Your task to perform on an android device: Open battery settings Image 0: 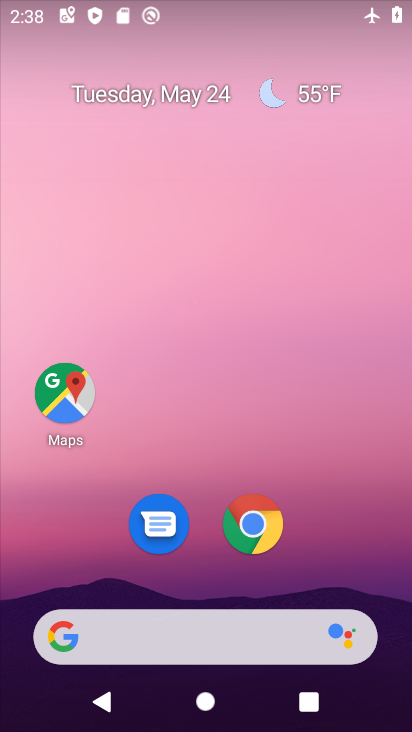
Step 0: drag from (329, 477) to (300, 55)
Your task to perform on an android device: Open battery settings Image 1: 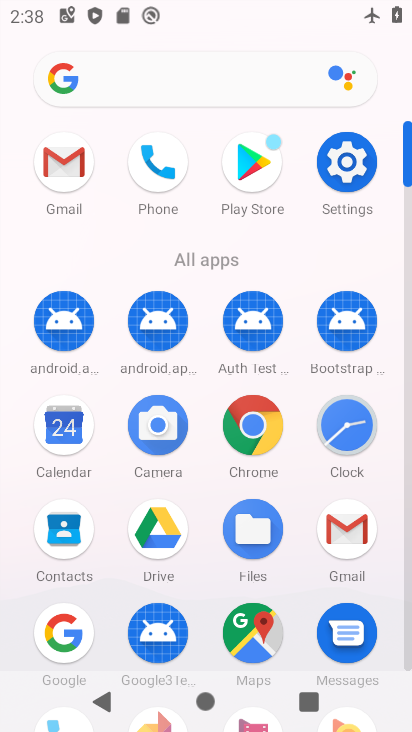
Step 1: click (343, 158)
Your task to perform on an android device: Open battery settings Image 2: 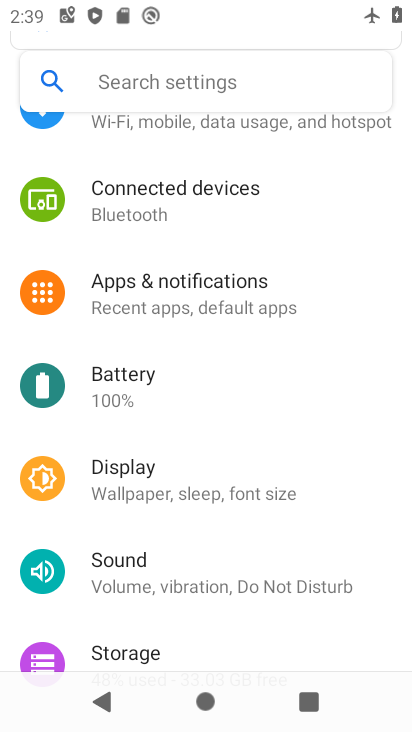
Step 2: click (166, 383)
Your task to perform on an android device: Open battery settings Image 3: 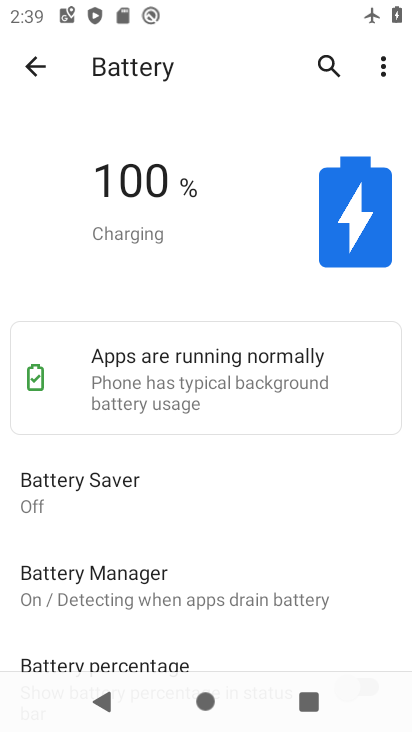
Step 3: task complete